Your task to perform on an android device: Toggle the flashlight Image 0: 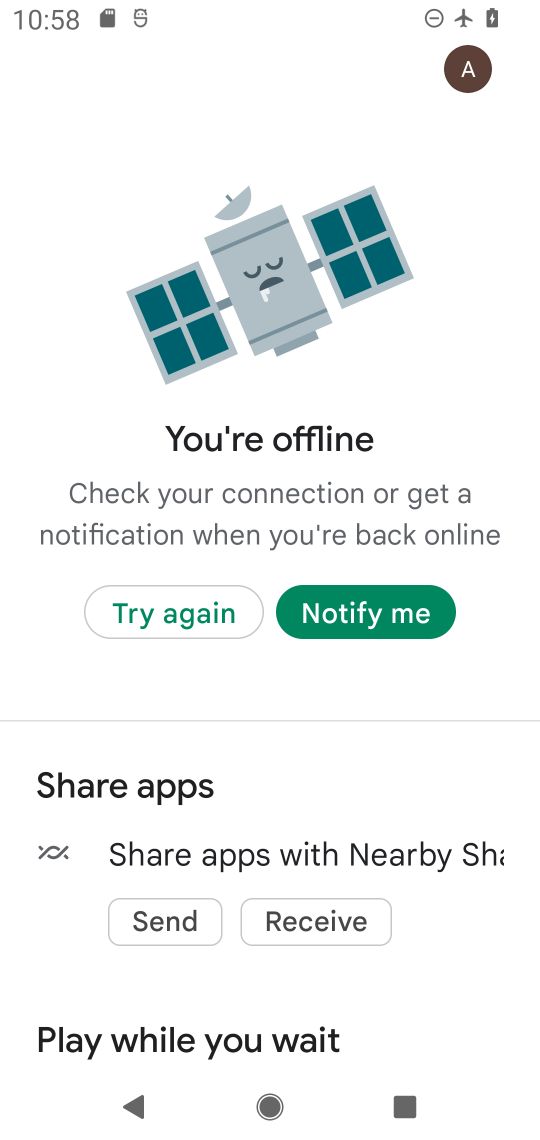
Step 0: press home button
Your task to perform on an android device: Toggle the flashlight Image 1: 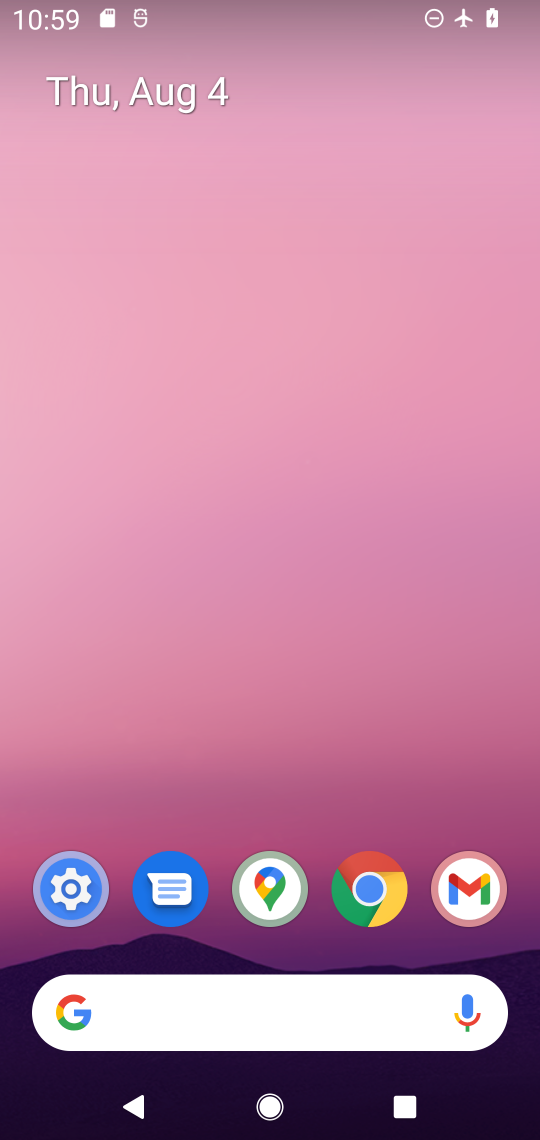
Step 1: task complete